Your task to perform on an android device: delete location history Image 0: 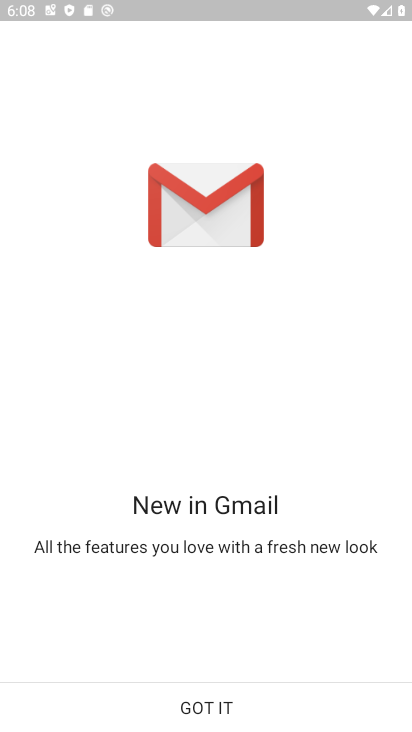
Step 0: press home button
Your task to perform on an android device: delete location history Image 1: 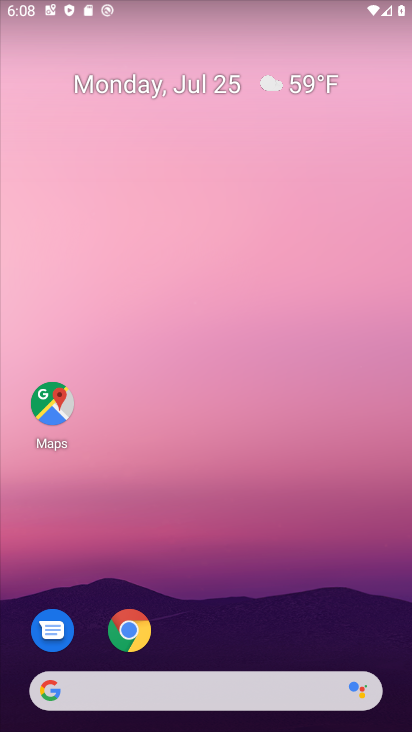
Step 1: drag from (191, 598) to (200, 167)
Your task to perform on an android device: delete location history Image 2: 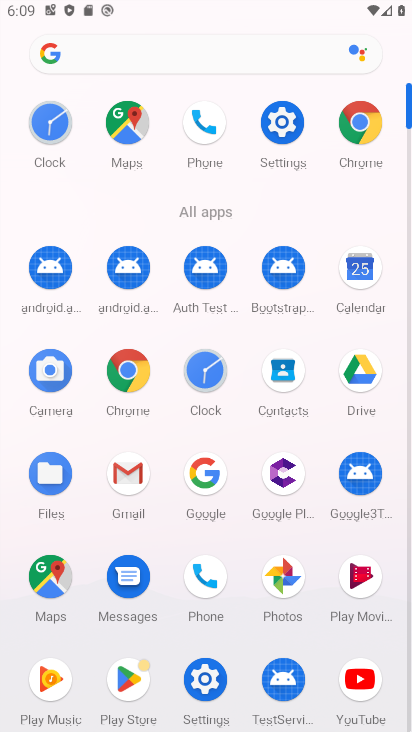
Step 2: click (272, 126)
Your task to perform on an android device: delete location history Image 3: 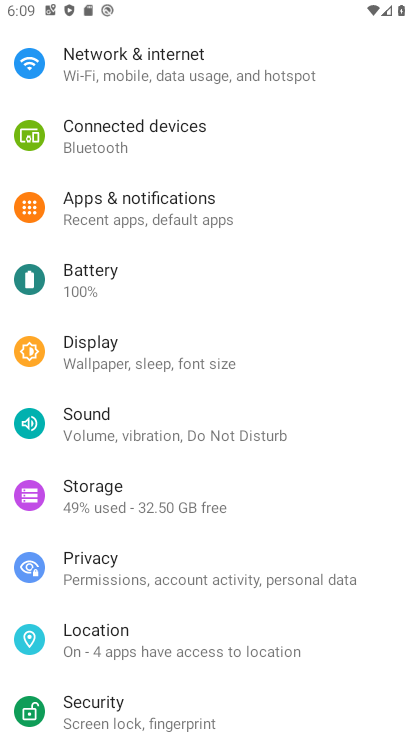
Step 3: click (112, 636)
Your task to perform on an android device: delete location history Image 4: 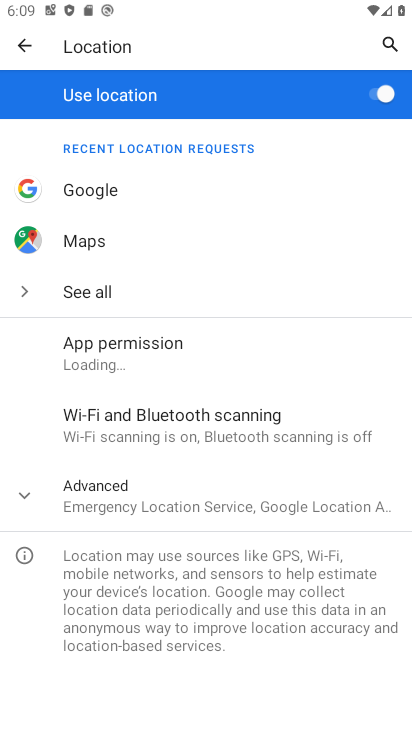
Step 4: click (136, 497)
Your task to perform on an android device: delete location history Image 5: 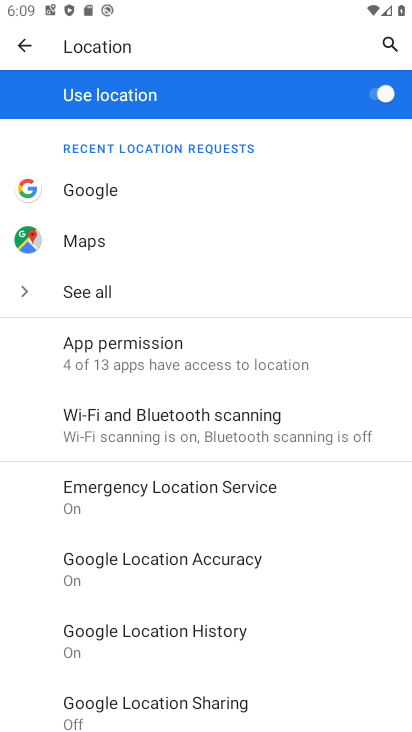
Step 5: click (239, 637)
Your task to perform on an android device: delete location history Image 6: 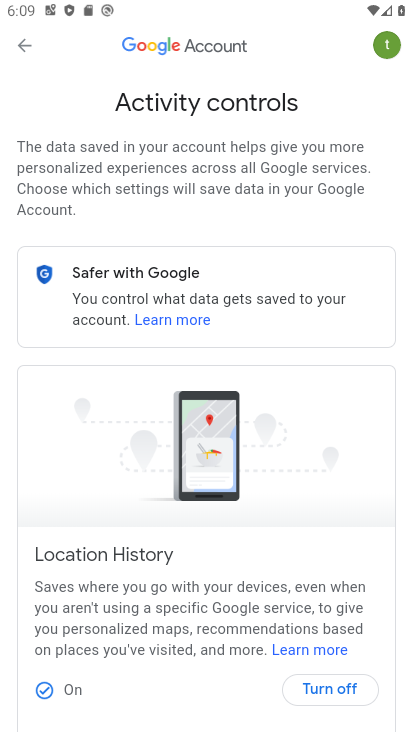
Step 6: drag from (229, 643) to (223, 349)
Your task to perform on an android device: delete location history Image 7: 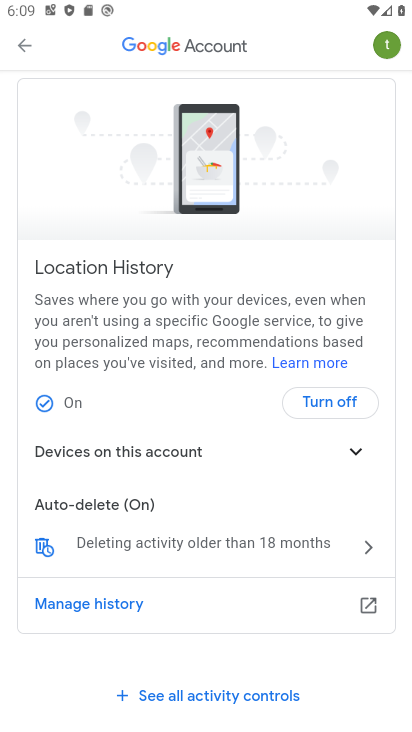
Step 7: click (107, 601)
Your task to perform on an android device: delete location history Image 8: 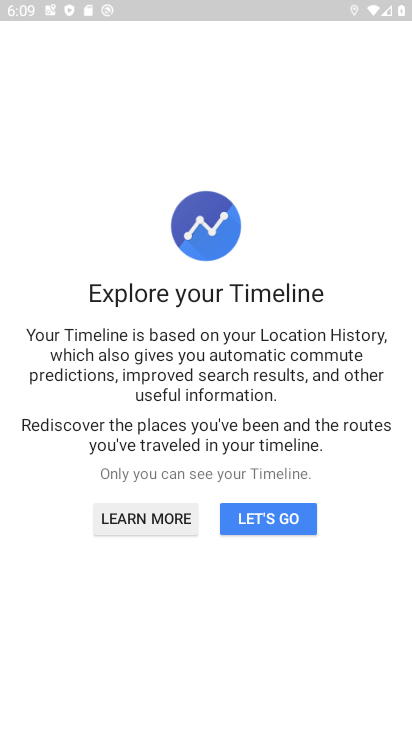
Step 8: click (265, 516)
Your task to perform on an android device: delete location history Image 9: 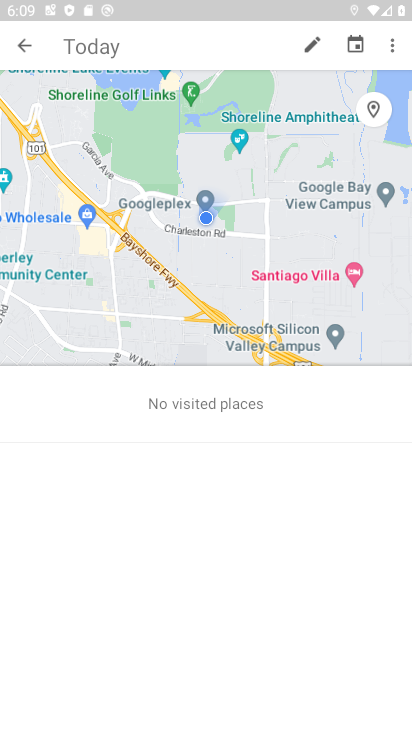
Step 9: click (392, 50)
Your task to perform on an android device: delete location history Image 10: 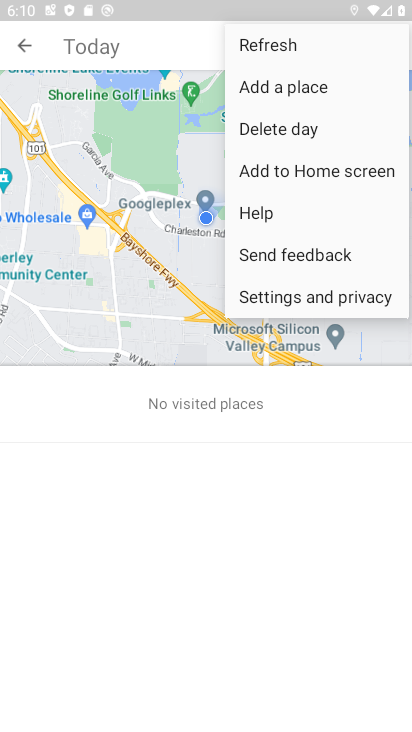
Step 10: click (287, 294)
Your task to perform on an android device: delete location history Image 11: 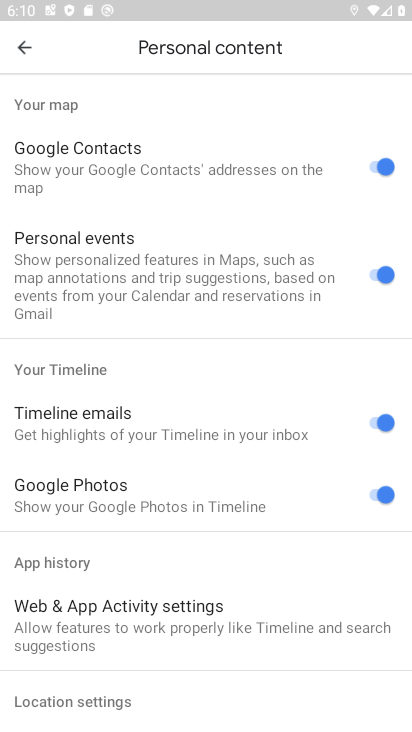
Step 11: drag from (232, 574) to (233, 303)
Your task to perform on an android device: delete location history Image 12: 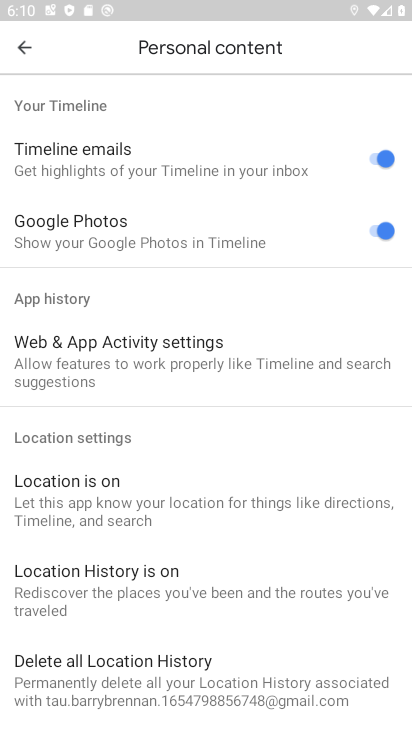
Step 12: drag from (194, 473) to (194, 413)
Your task to perform on an android device: delete location history Image 13: 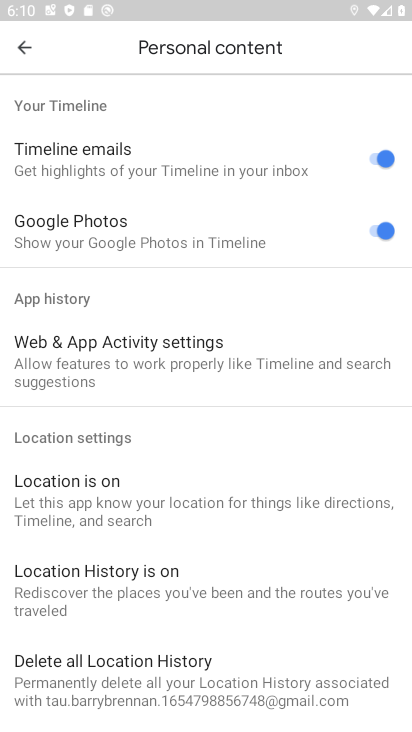
Step 13: click (136, 692)
Your task to perform on an android device: delete location history Image 14: 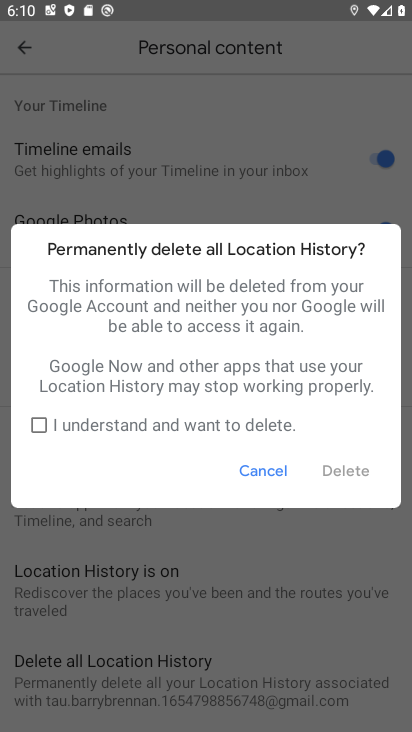
Step 14: click (43, 430)
Your task to perform on an android device: delete location history Image 15: 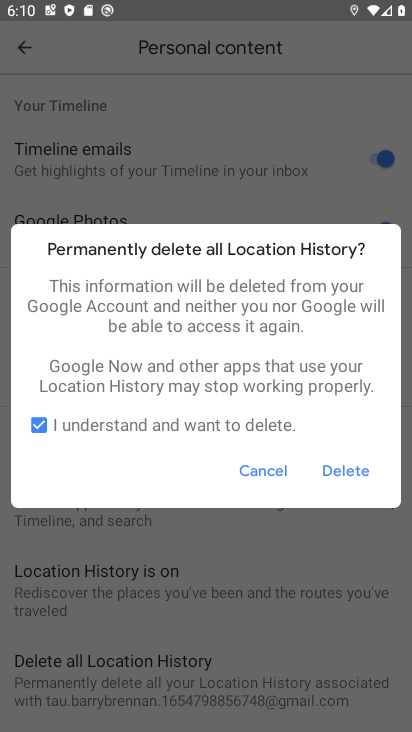
Step 15: click (346, 464)
Your task to perform on an android device: delete location history Image 16: 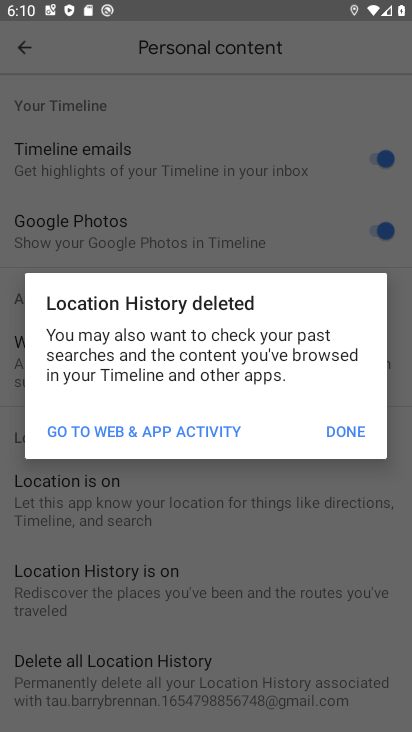
Step 16: click (346, 428)
Your task to perform on an android device: delete location history Image 17: 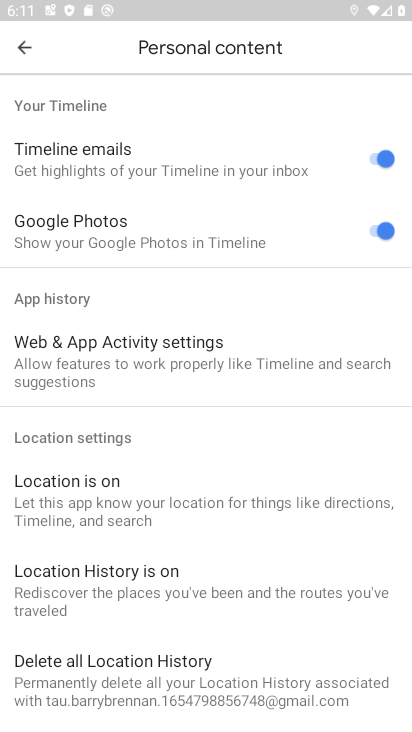
Step 17: task complete